Your task to perform on an android device: turn on the 24-hour format for clock Image 0: 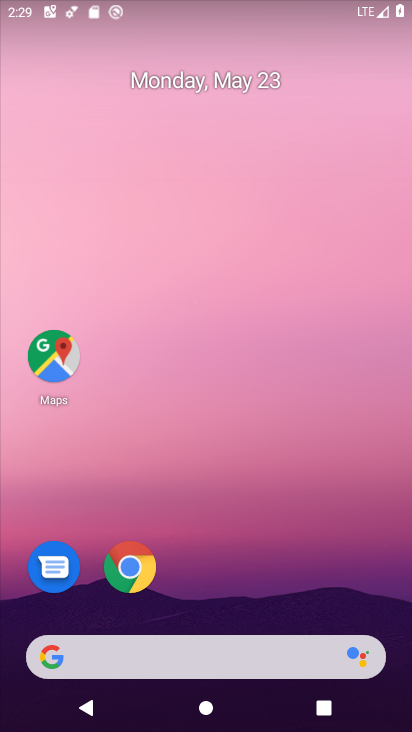
Step 0: drag from (216, 590) to (286, 304)
Your task to perform on an android device: turn on the 24-hour format for clock Image 1: 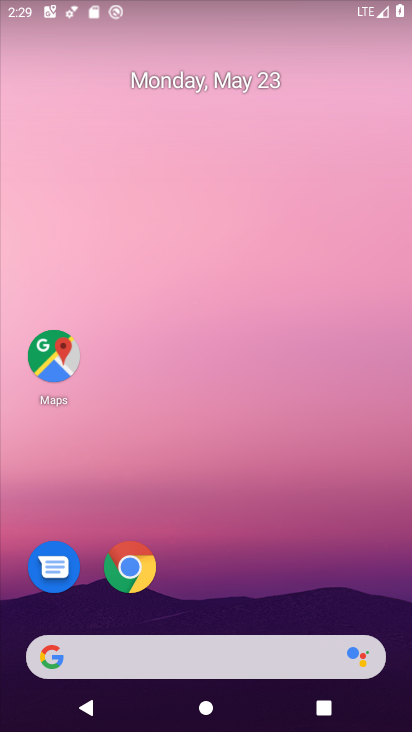
Step 1: drag from (278, 557) to (278, 143)
Your task to perform on an android device: turn on the 24-hour format for clock Image 2: 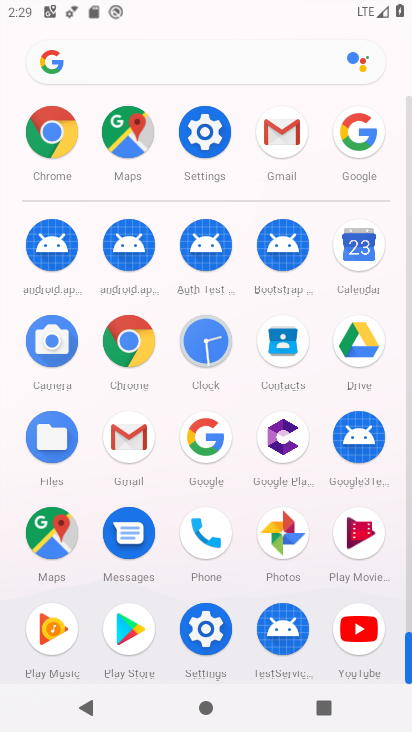
Step 2: click (216, 358)
Your task to perform on an android device: turn on the 24-hour format for clock Image 3: 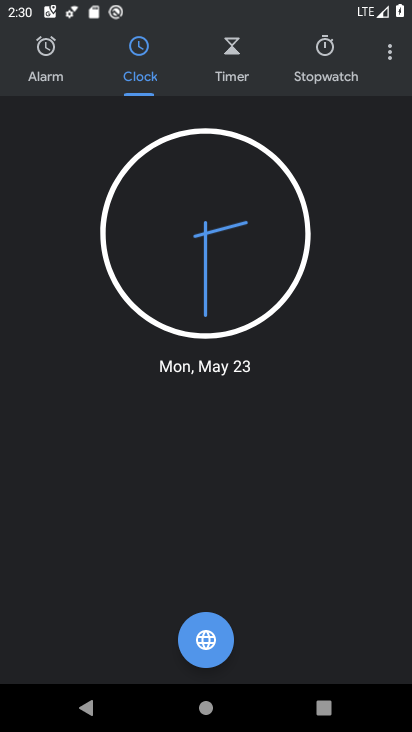
Step 3: click (395, 62)
Your task to perform on an android device: turn on the 24-hour format for clock Image 4: 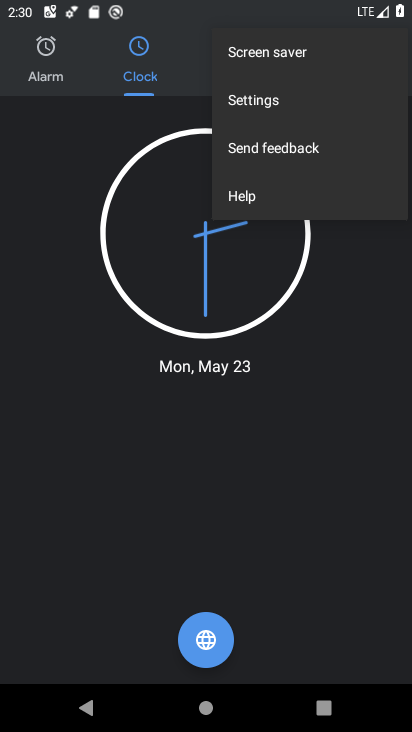
Step 4: click (289, 103)
Your task to perform on an android device: turn on the 24-hour format for clock Image 5: 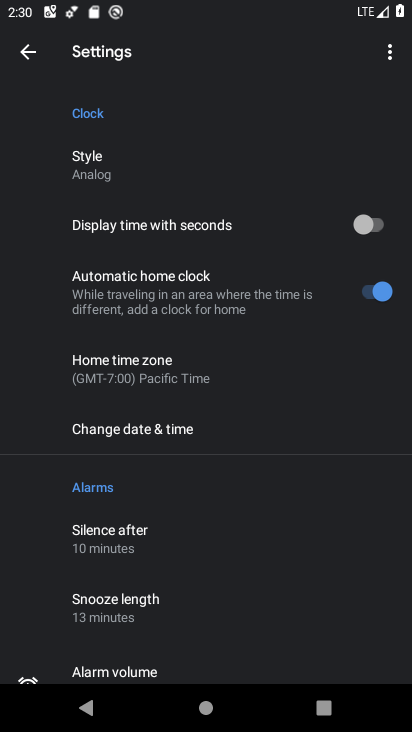
Step 5: drag from (183, 529) to (214, 448)
Your task to perform on an android device: turn on the 24-hour format for clock Image 6: 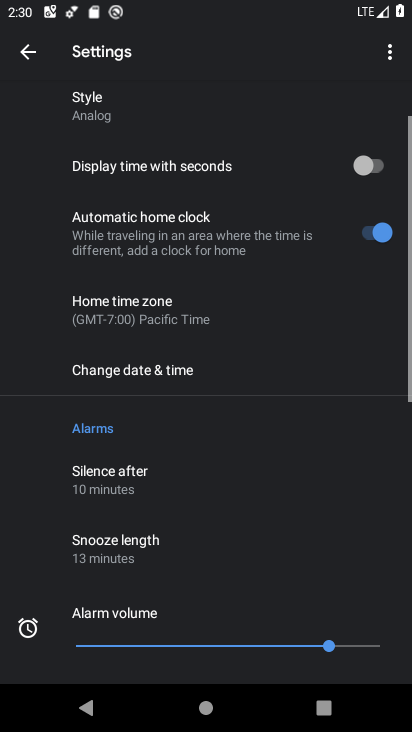
Step 6: click (206, 383)
Your task to perform on an android device: turn on the 24-hour format for clock Image 7: 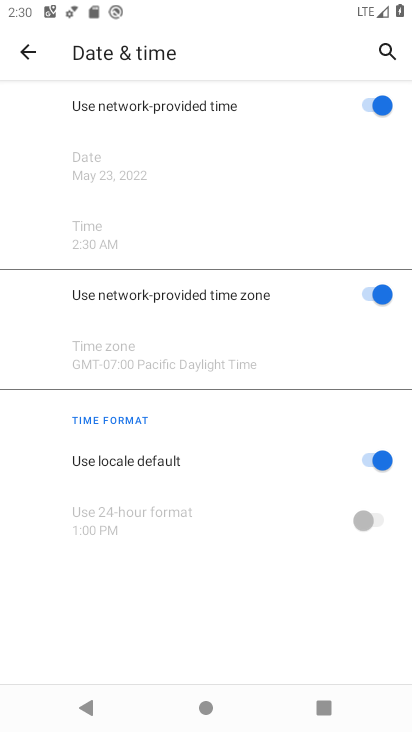
Step 7: click (376, 455)
Your task to perform on an android device: turn on the 24-hour format for clock Image 8: 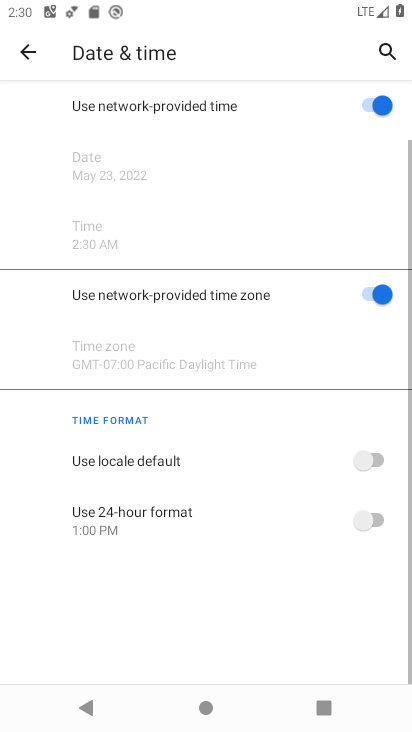
Step 8: click (361, 528)
Your task to perform on an android device: turn on the 24-hour format for clock Image 9: 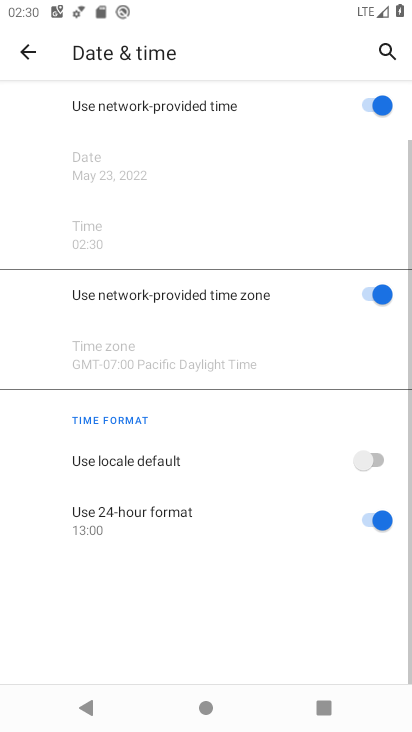
Step 9: task complete